Your task to perform on an android device: When is my next meeting? Image 0: 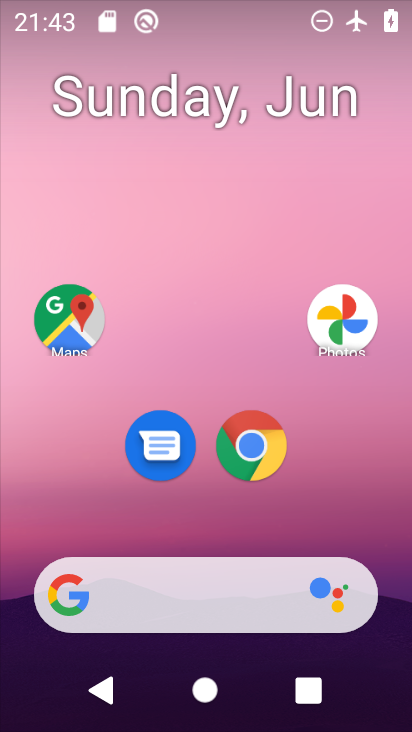
Step 0: press home button
Your task to perform on an android device: When is my next meeting? Image 1: 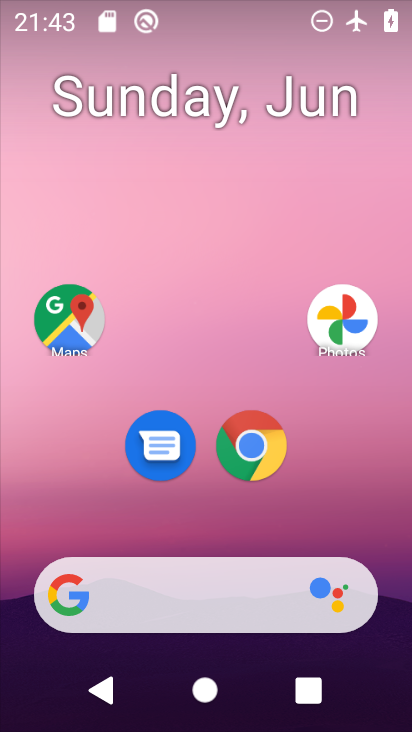
Step 1: drag from (314, 536) to (271, 1)
Your task to perform on an android device: When is my next meeting? Image 2: 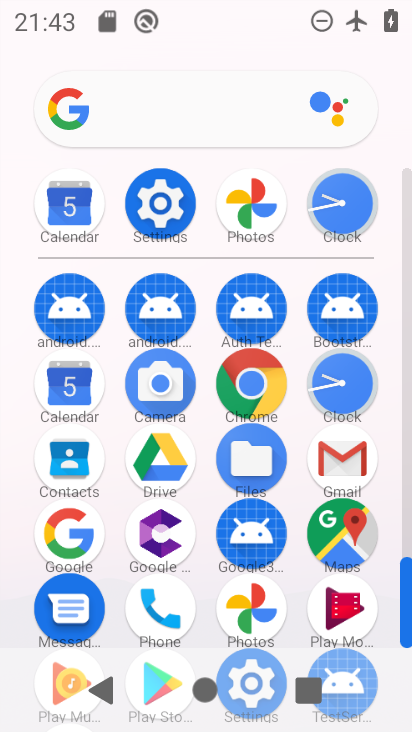
Step 2: click (64, 391)
Your task to perform on an android device: When is my next meeting? Image 3: 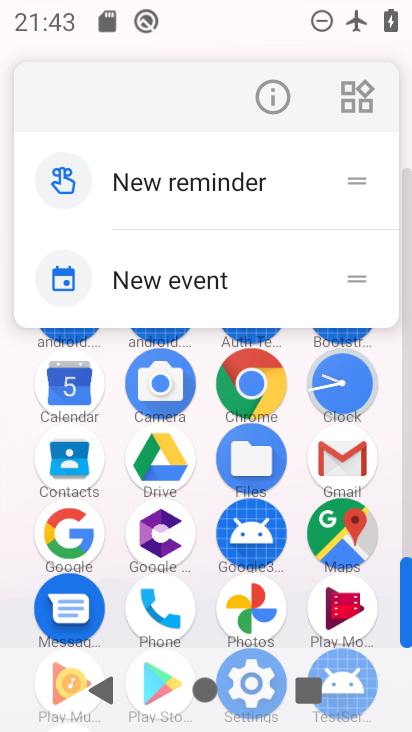
Step 3: click (64, 392)
Your task to perform on an android device: When is my next meeting? Image 4: 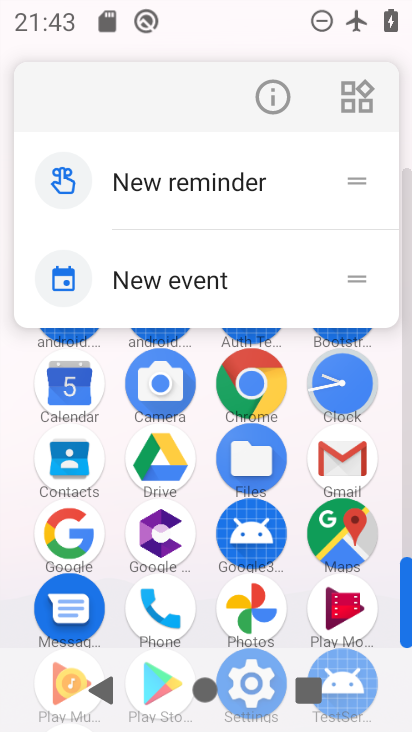
Step 4: click (65, 384)
Your task to perform on an android device: When is my next meeting? Image 5: 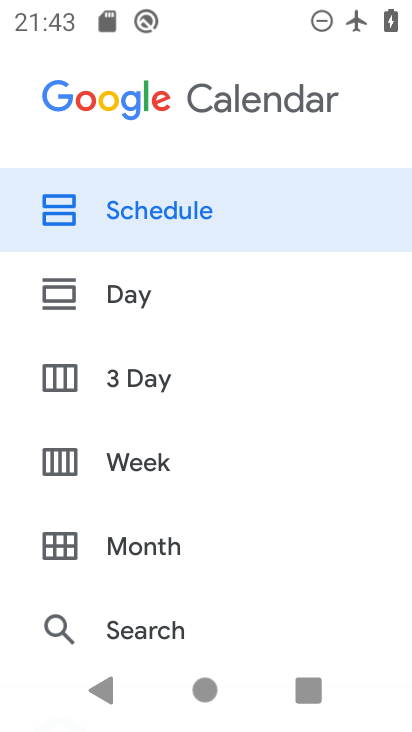
Step 5: click (216, 202)
Your task to perform on an android device: When is my next meeting? Image 6: 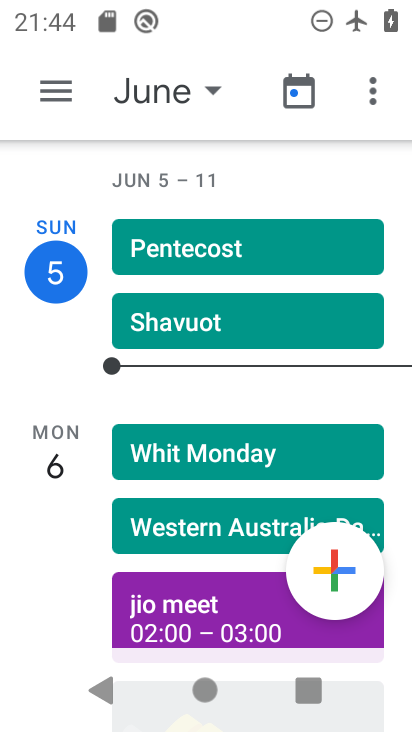
Step 6: task complete